Your task to perform on an android device: Open settings on Google Maps Image 0: 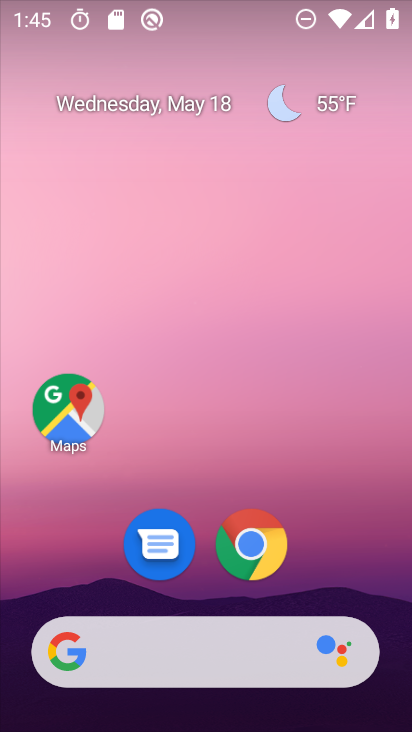
Step 0: click (76, 406)
Your task to perform on an android device: Open settings on Google Maps Image 1: 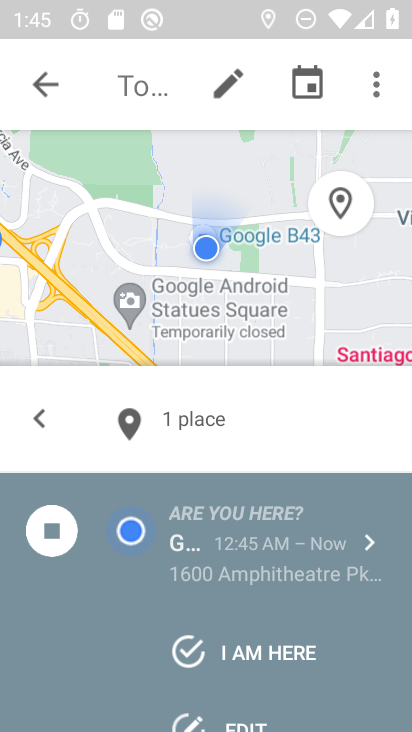
Step 1: click (47, 91)
Your task to perform on an android device: Open settings on Google Maps Image 2: 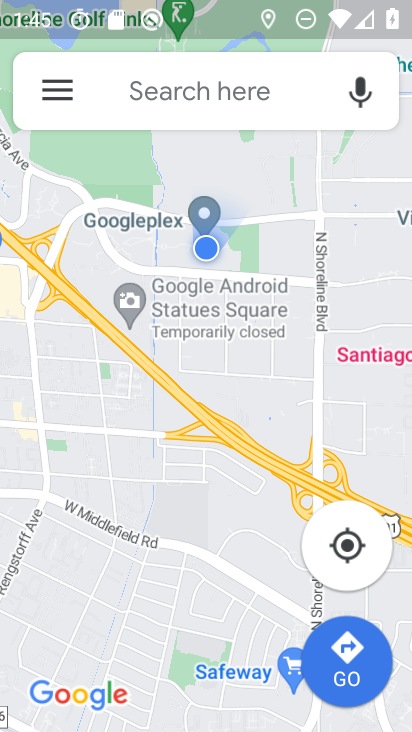
Step 2: click (47, 91)
Your task to perform on an android device: Open settings on Google Maps Image 3: 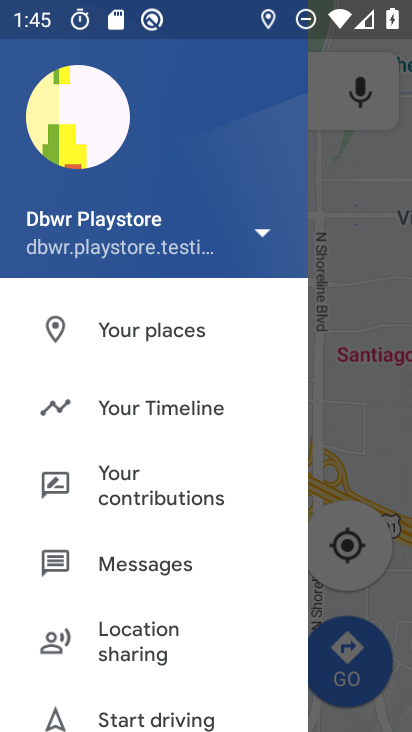
Step 3: drag from (153, 645) to (148, 300)
Your task to perform on an android device: Open settings on Google Maps Image 4: 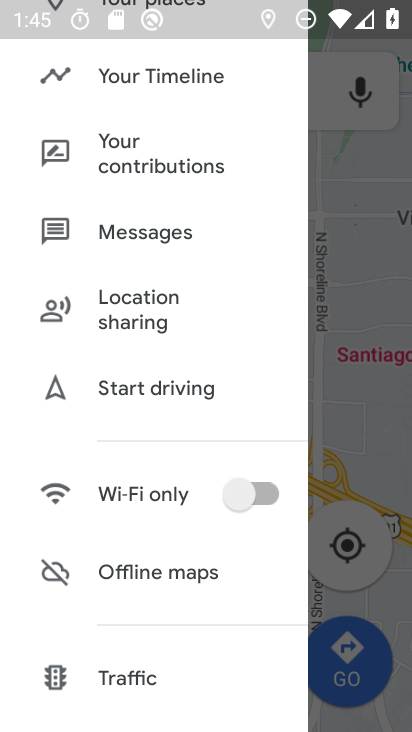
Step 4: drag from (189, 686) to (189, 316)
Your task to perform on an android device: Open settings on Google Maps Image 5: 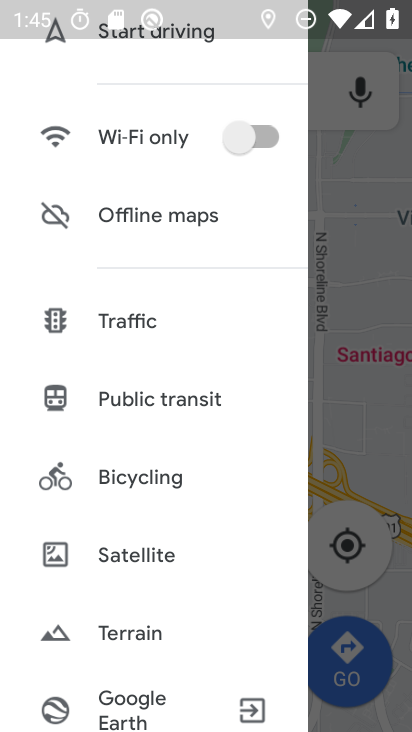
Step 5: drag from (169, 657) to (174, 301)
Your task to perform on an android device: Open settings on Google Maps Image 6: 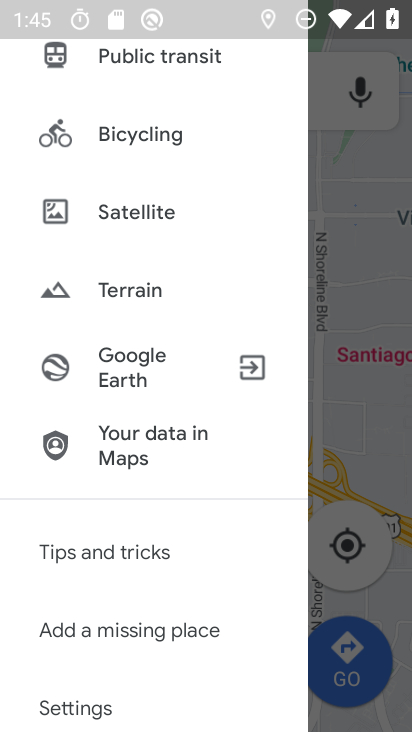
Step 6: click (93, 707)
Your task to perform on an android device: Open settings on Google Maps Image 7: 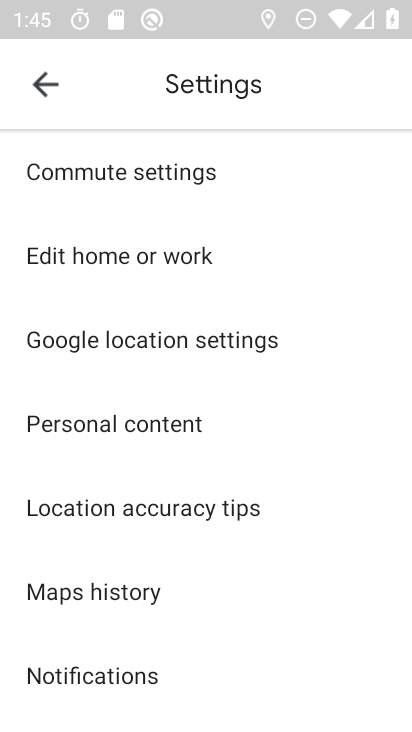
Step 7: task complete